Your task to perform on an android device: Is it going to rain today? Image 0: 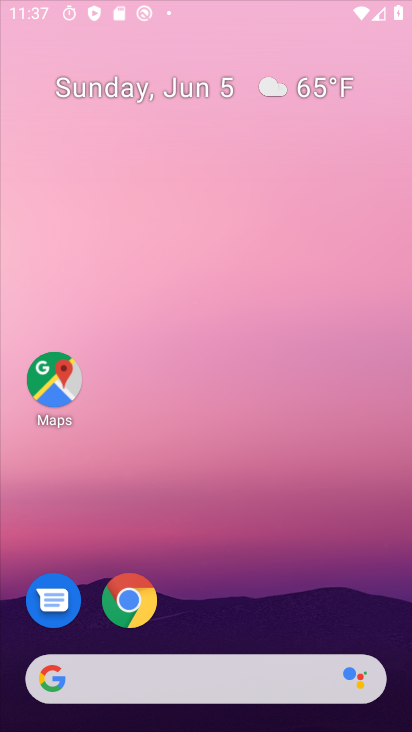
Step 0: click (126, 159)
Your task to perform on an android device: Is it going to rain today? Image 1: 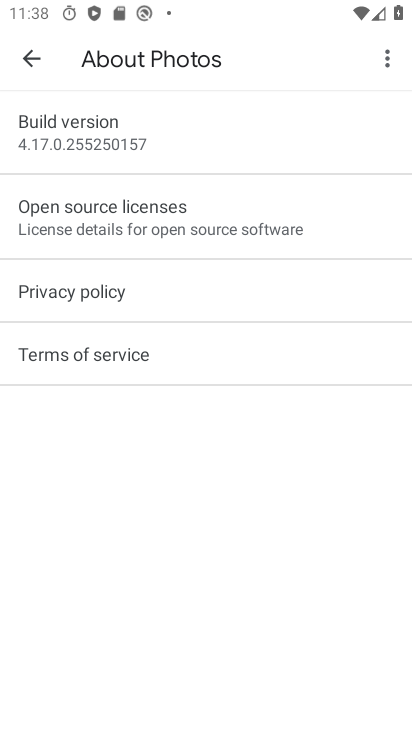
Step 1: press back button
Your task to perform on an android device: Is it going to rain today? Image 2: 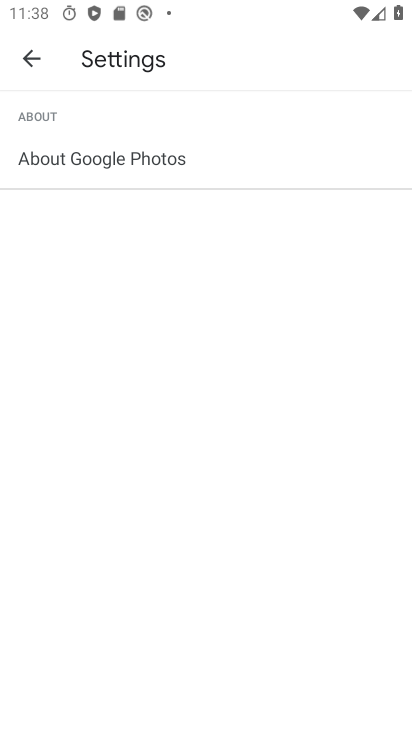
Step 2: click (24, 44)
Your task to perform on an android device: Is it going to rain today? Image 3: 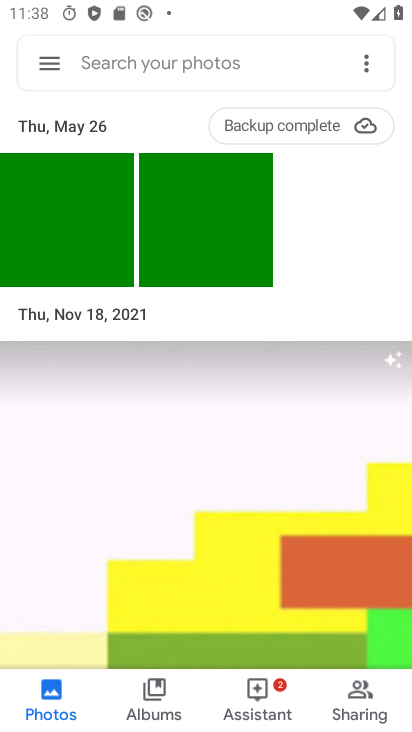
Step 3: press home button
Your task to perform on an android device: Is it going to rain today? Image 4: 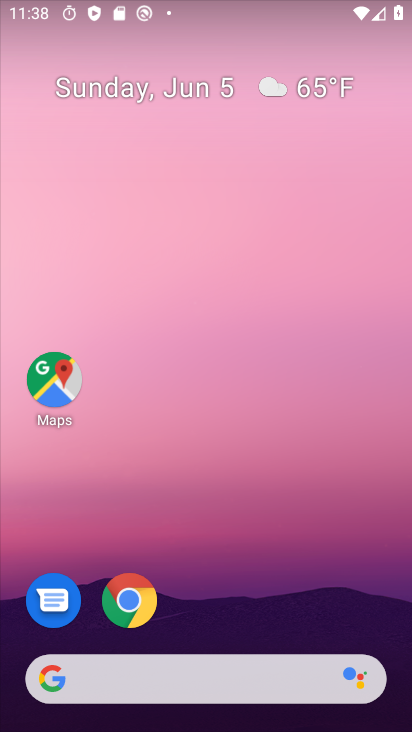
Step 4: drag from (66, 278) to (376, 566)
Your task to perform on an android device: Is it going to rain today? Image 5: 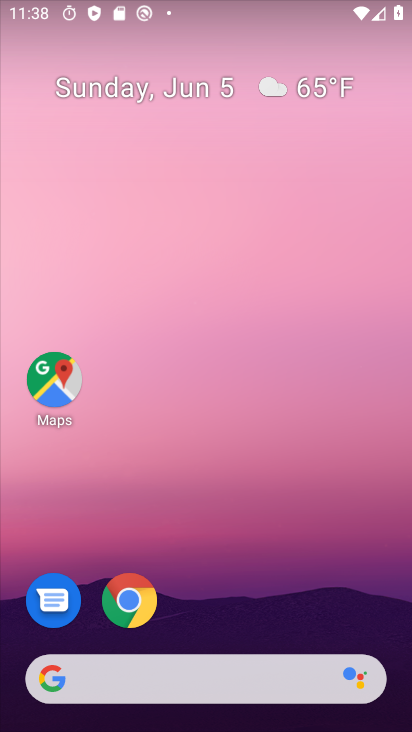
Step 5: drag from (19, 161) to (408, 364)
Your task to perform on an android device: Is it going to rain today? Image 6: 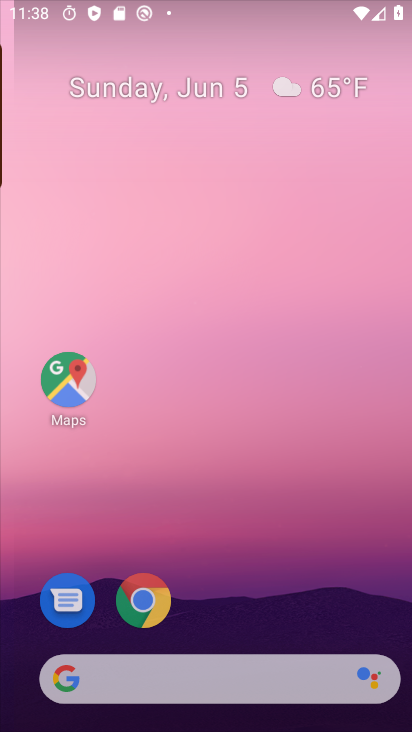
Step 6: click (70, 223)
Your task to perform on an android device: Is it going to rain today? Image 7: 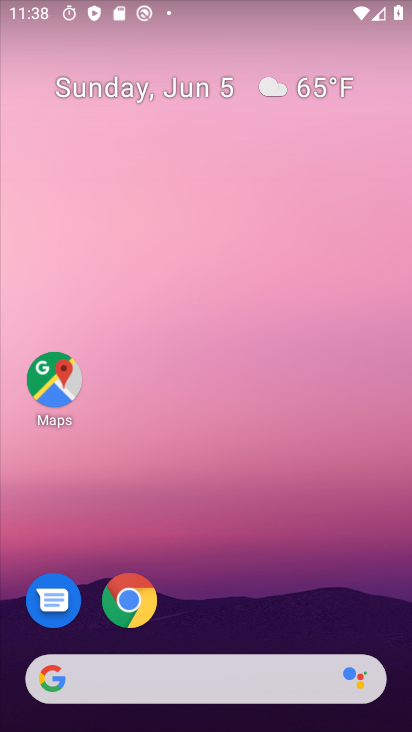
Step 7: drag from (21, 229) to (232, 511)
Your task to perform on an android device: Is it going to rain today? Image 8: 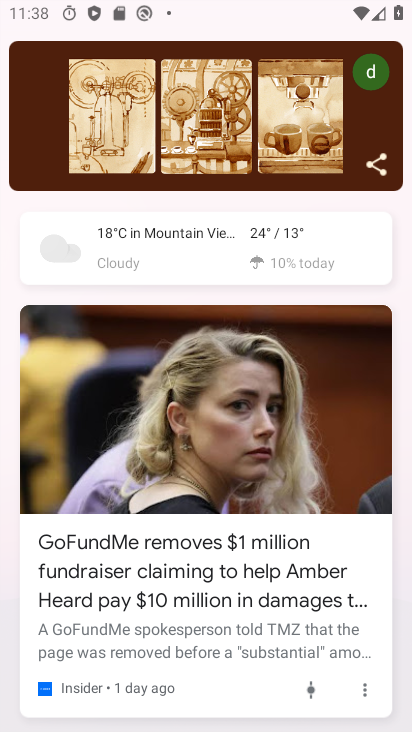
Step 8: drag from (4, 193) to (152, 494)
Your task to perform on an android device: Is it going to rain today? Image 9: 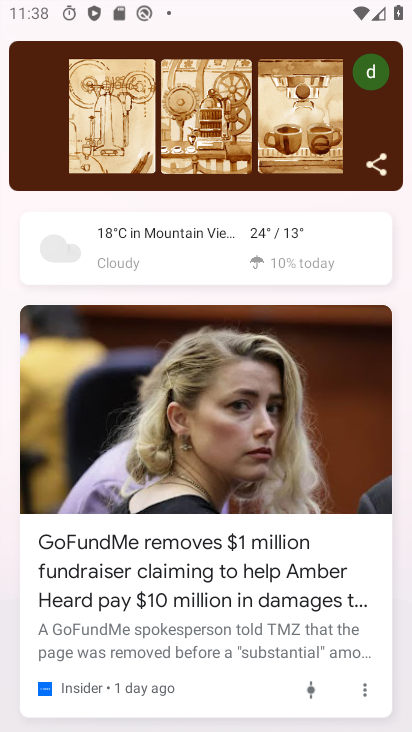
Step 9: click (204, 234)
Your task to perform on an android device: Is it going to rain today? Image 10: 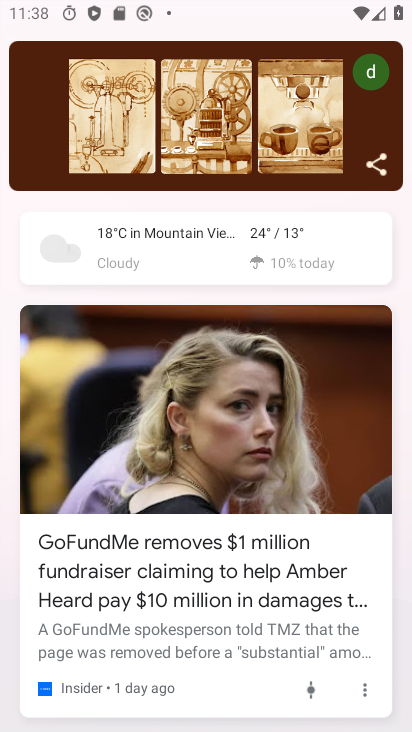
Step 10: click (204, 236)
Your task to perform on an android device: Is it going to rain today? Image 11: 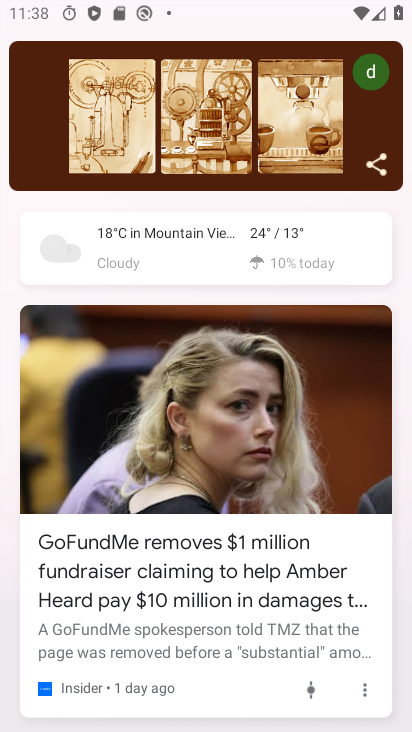
Step 11: click (209, 237)
Your task to perform on an android device: Is it going to rain today? Image 12: 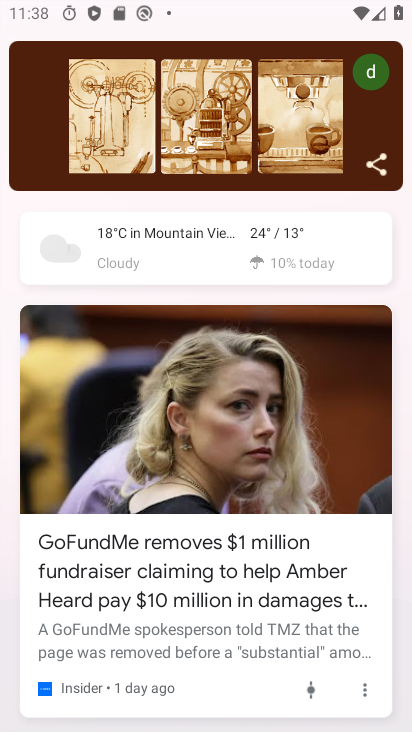
Step 12: click (209, 237)
Your task to perform on an android device: Is it going to rain today? Image 13: 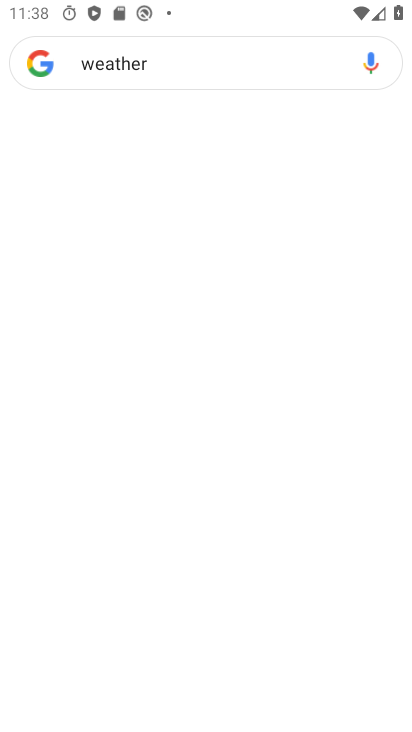
Step 13: click (211, 235)
Your task to perform on an android device: Is it going to rain today? Image 14: 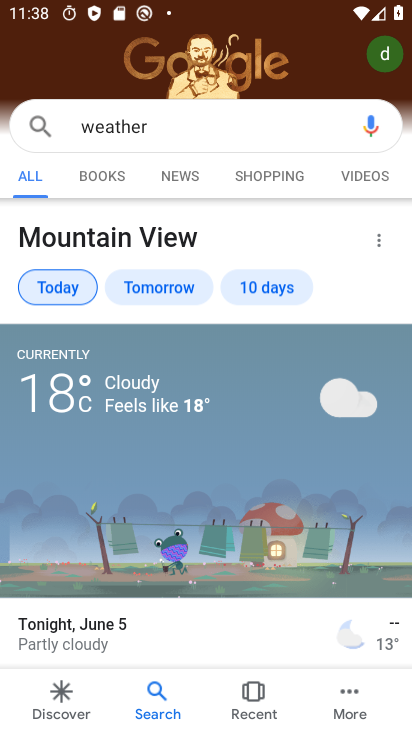
Step 14: click (55, 294)
Your task to perform on an android device: Is it going to rain today? Image 15: 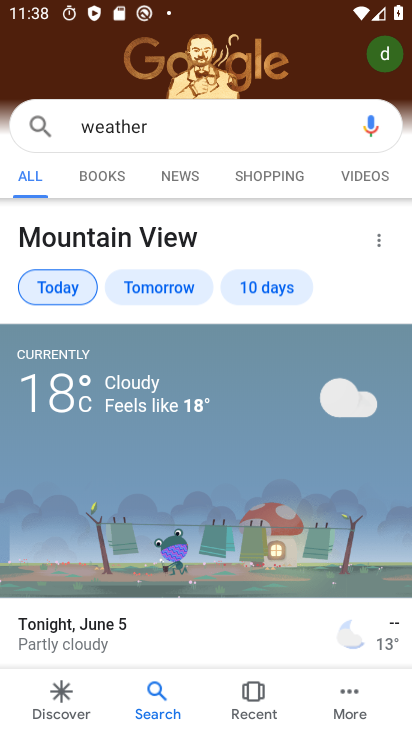
Step 15: click (54, 294)
Your task to perform on an android device: Is it going to rain today? Image 16: 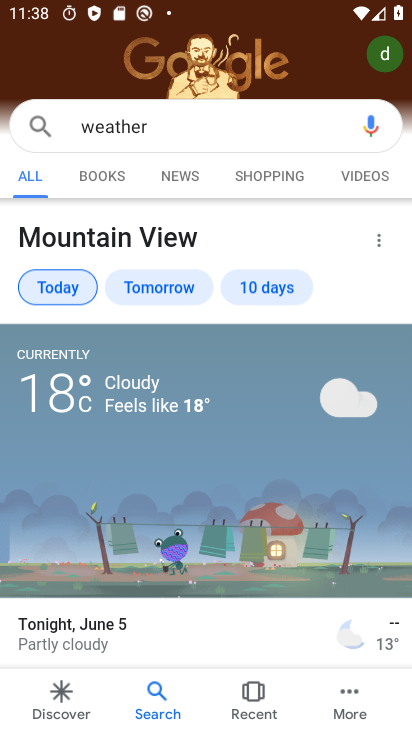
Step 16: click (68, 302)
Your task to perform on an android device: Is it going to rain today? Image 17: 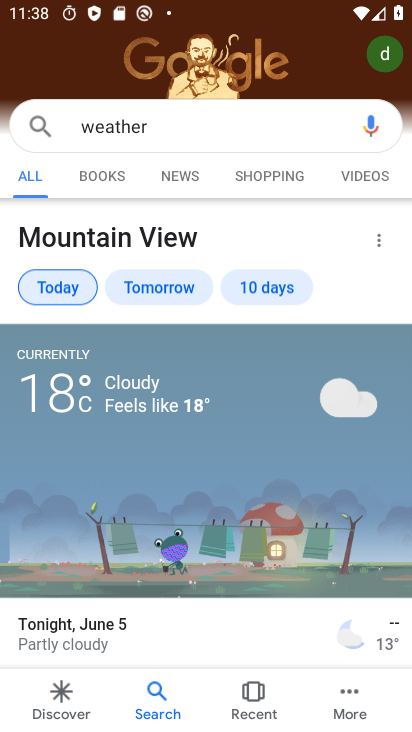
Step 17: click (74, 309)
Your task to perform on an android device: Is it going to rain today? Image 18: 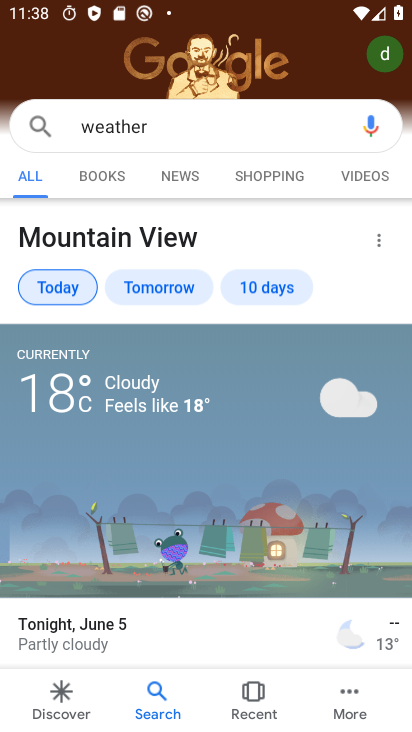
Step 18: click (80, 308)
Your task to perform on an android device: Is it going to rain today? Image 19: 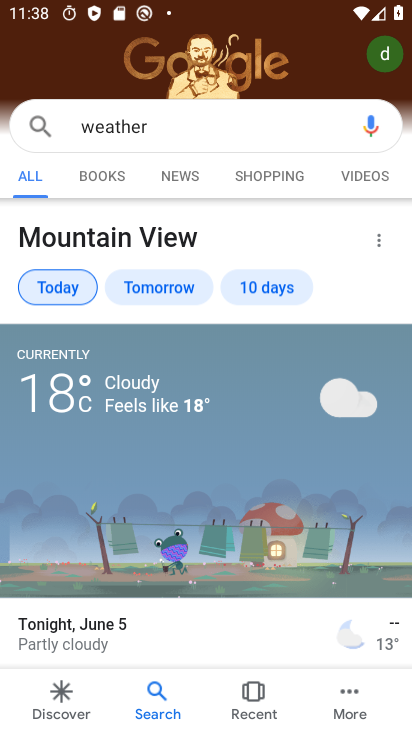
Step 19: click (81, 308)
Your task to perform on an android device: Is it going to rain today? Image 20: 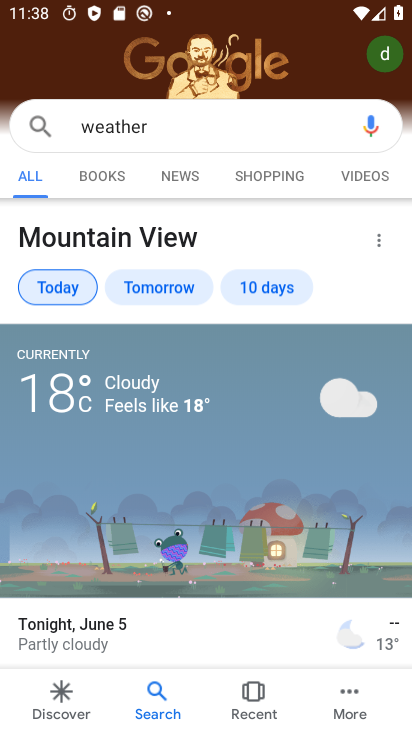
Step 20: click (83, 306)
Your task to perform on an android device: Is it going to rain today? Image 21: 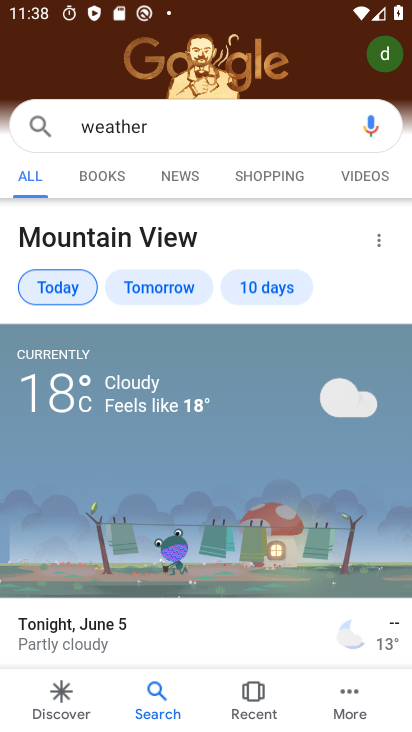
Step 21: task complete